Your task to perform on an android device: turn on the 12-hour format for clock Image 0: 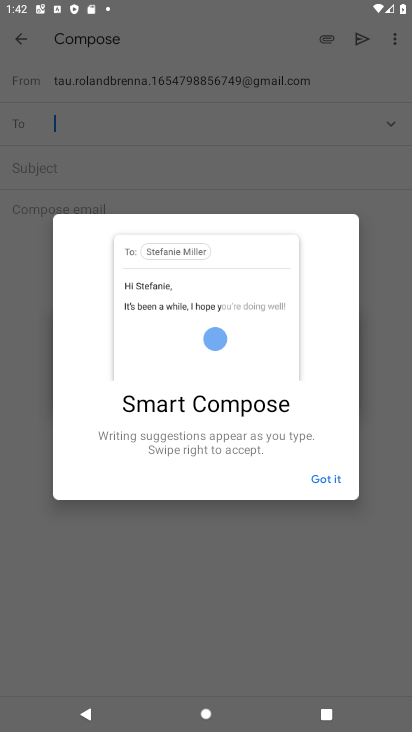
Step 0: press home button
Your task to perform on an android device: turn on the 12-hour format for clock Image 1: 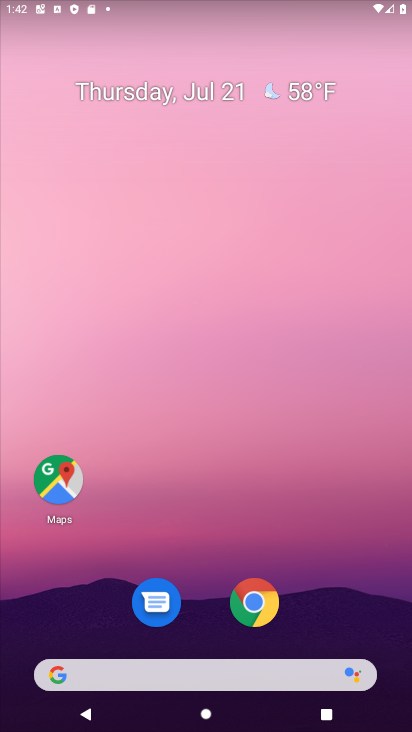
Step 1: drag from (393, 672) to (282, 57)
Your task to perform on an android device: turn on the 12-hour format for clock Image 2: 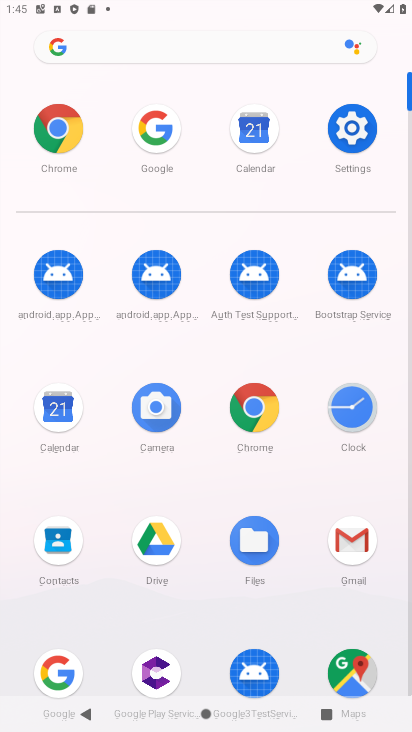
Step 2: click (359, 405)
Your task to perform on an android device: turn on the 12-hour format for clock Image 3: 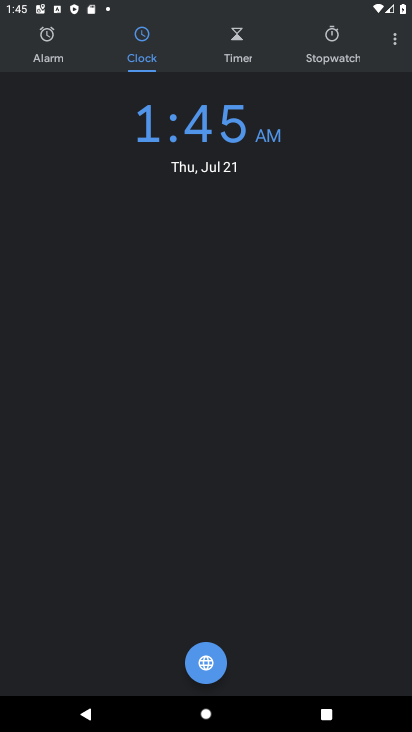
Step 3: click (395, 36)
Your task to perform on an android device: turn on the 12-hour format for clock Image 4: 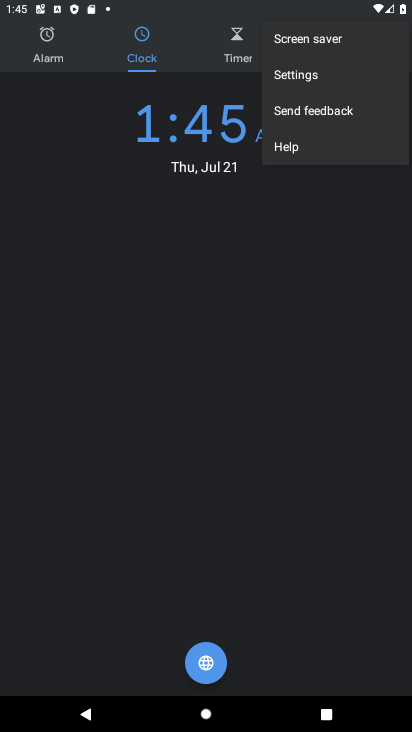
Step 4: click (296, 72)
Your task to perform on an android device: turn on the 12-hour format for clock Image 5: 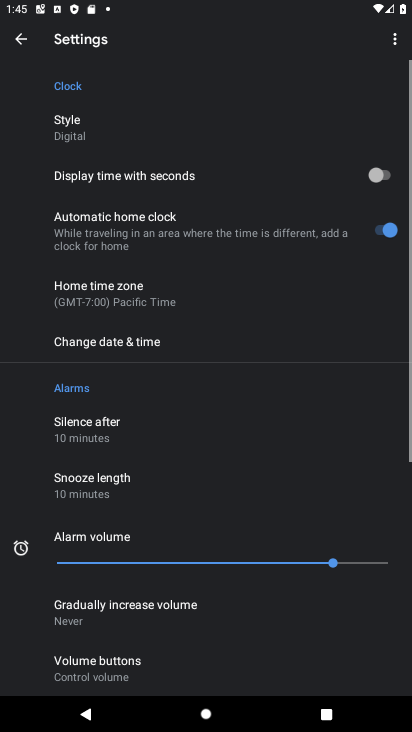
Step 5: click (142, 336)
Your task to perform on an android device: turn on the 12-hour format for clock Image 6: 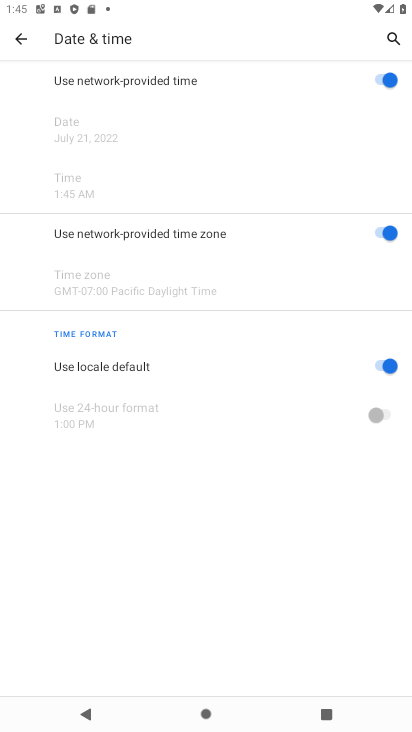
Step 6: task complete